Your task to perform on an android device: Is it going to rain this weekend? Image 0: 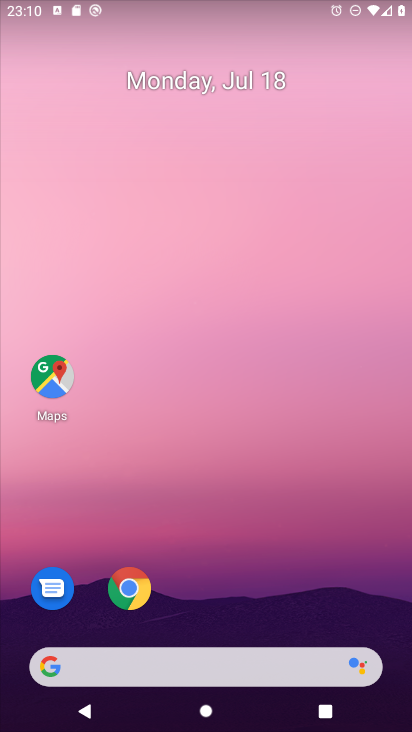
Step 0: drag from (0, 275) to (398, 290)
Your task to perform on an android device: Is it going to rain this weekend? Image 1: 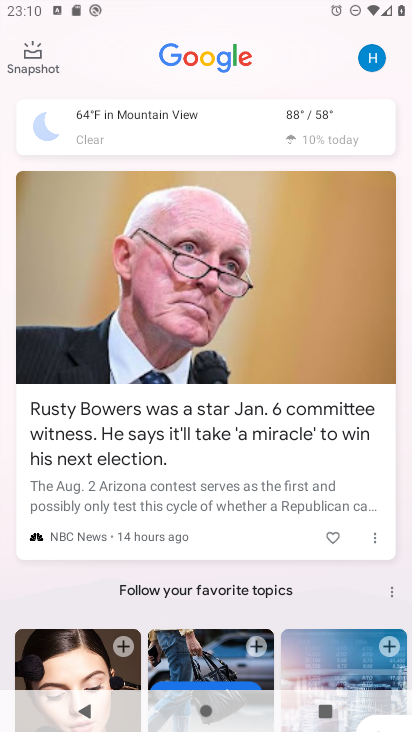
Step 1: click (300, 109)
Your task to perform on an android device: Is it going to rain this weekend? Image 2: 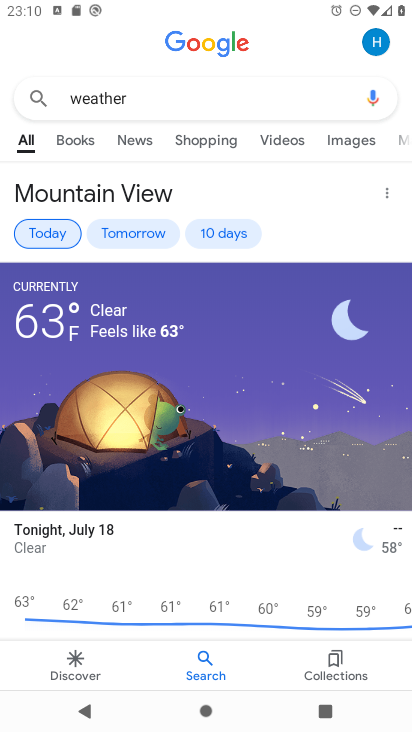
Step 2: click (217, 230)
Your task to perform on an android device: Is it going to rain this weekend? Image 3: 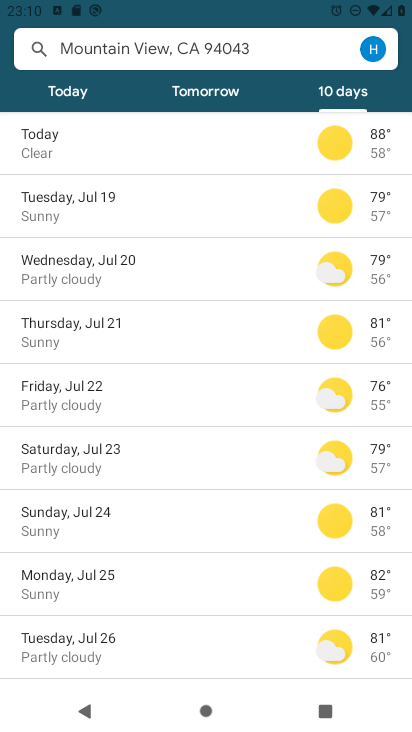
Step 3: task complete